Your task to perform on an android device: turn off location Image 0: 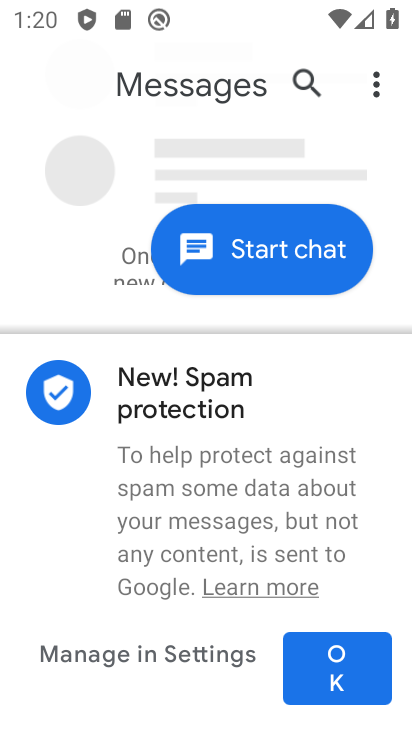
Step 0: press home button
Your task to perform on an android device: turn off location Image 1: 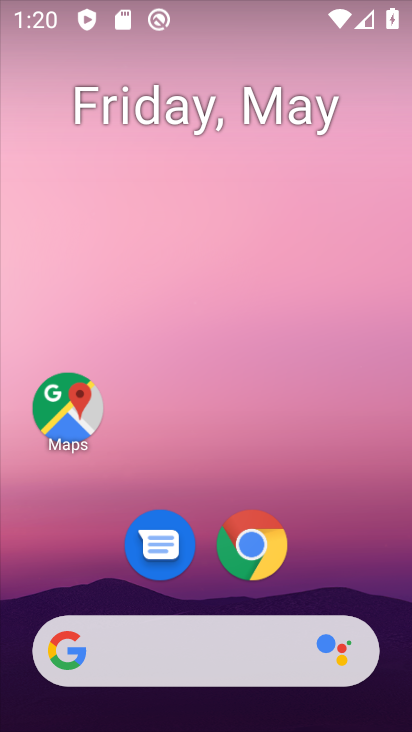
Step 1: drag from (332, 517) to (265, 137)
Your task to perform on an android device: turn off location Image 2: 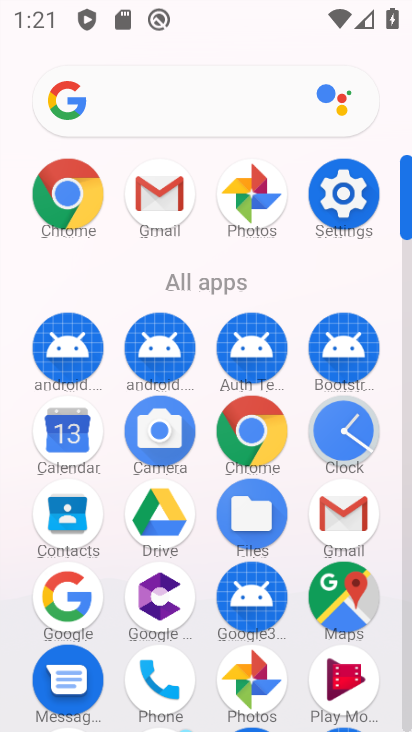
Step 2: click (336, 218)
Your task to perform on an android device: turn off location Image 3: 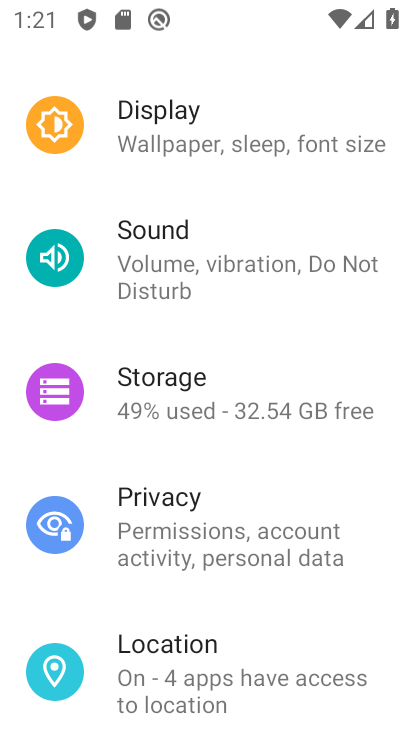
Step 3: click (203, 711)
Your task to perform on an android device: turn off location Image 4: 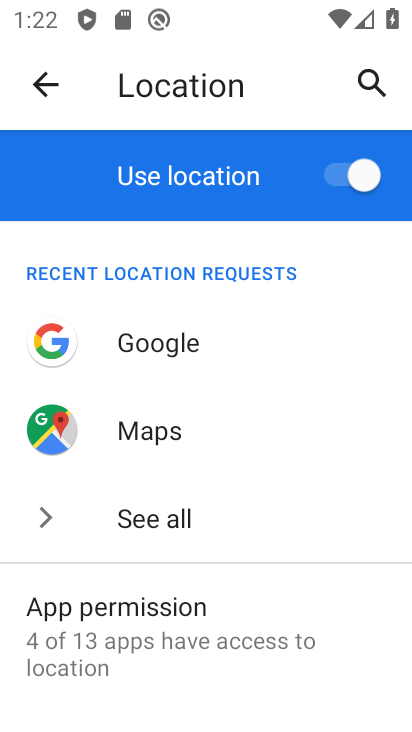
Step 4: click (340, 187)
Your task to perform on an android device: turn off location Image 5: 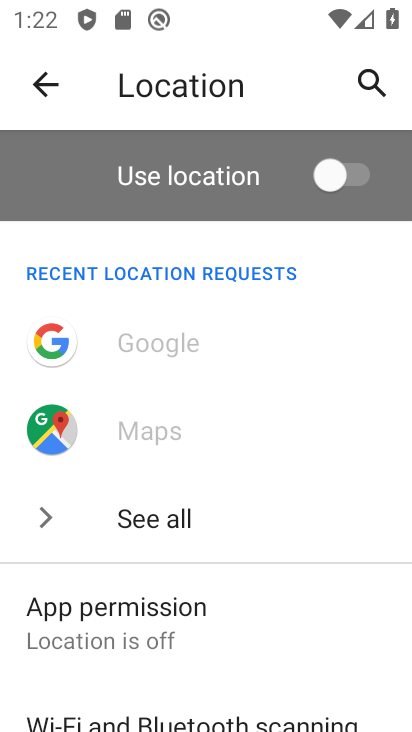
Step 5: task complete